Your task to perform on an android device: Go to CNN.com Image 0: 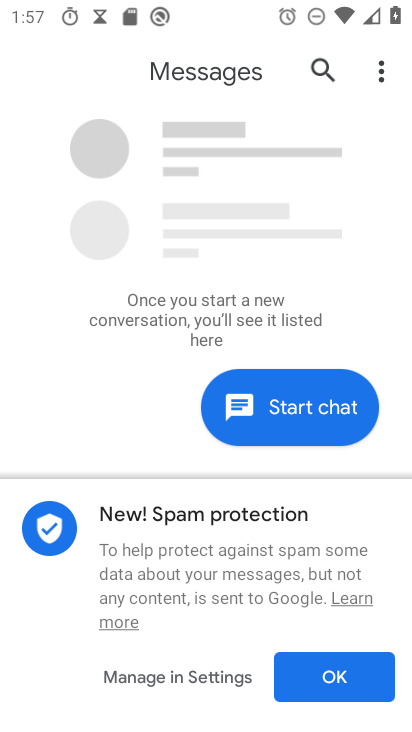
Step 0: press home button
Your task to perform on an android device: Go to CNN.com Image 1: 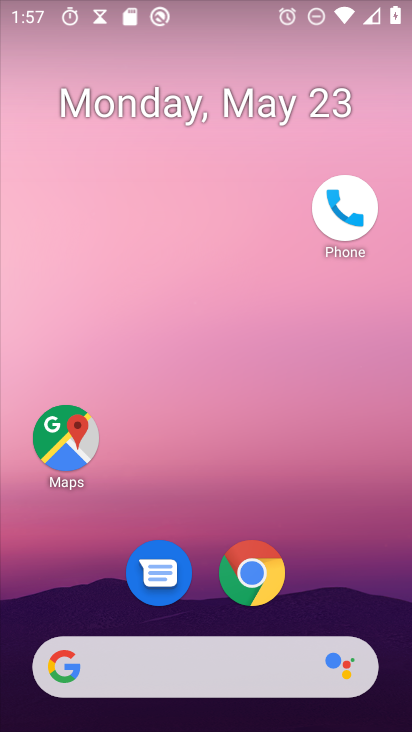
Step 1: click (256, 590)
Your task to perform on an android device: Go to CNN.com Image 2: 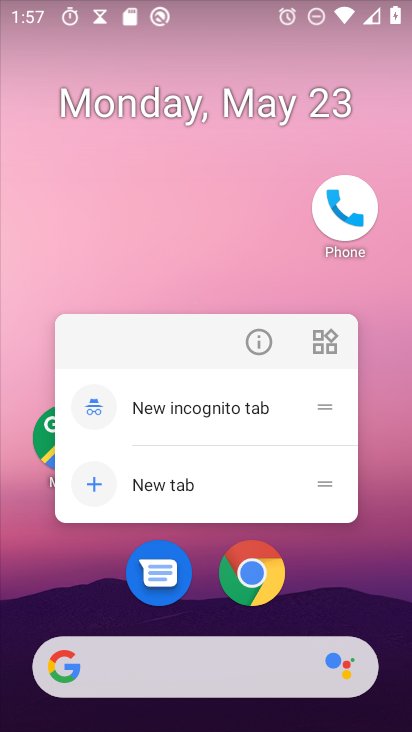
Step 2: click (241, 574)
Your task to perform on an android device: Go to CNN.com Image 3: 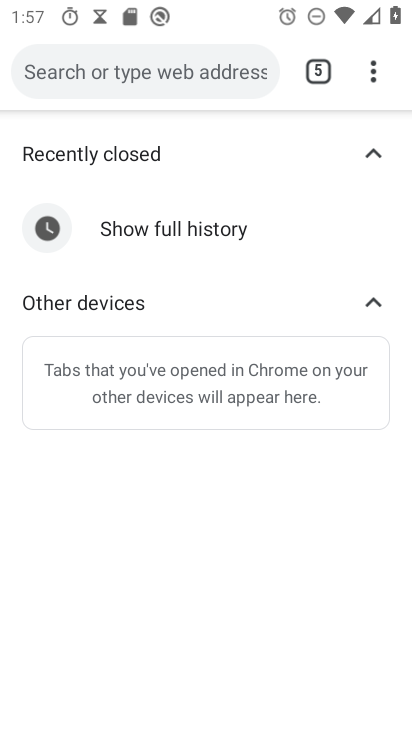
Step 3: drag from (373, 84) to (297, 133)
Your task to perform on an android device: Go to CNN.com Image 4: 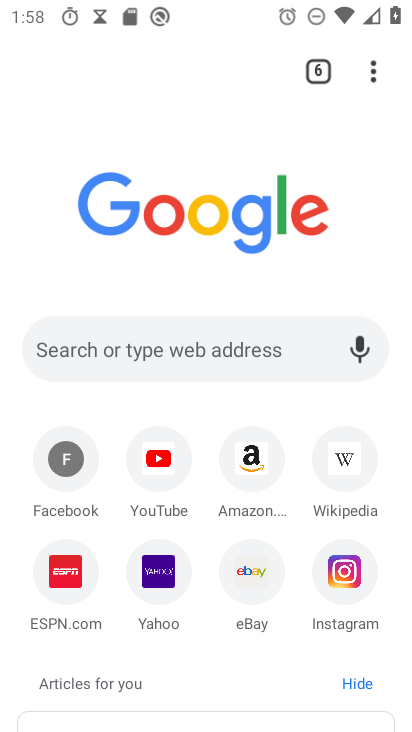
Step 4: click (105, 355)
Your task to perform on an android device: Go to CNN.com Image 5: 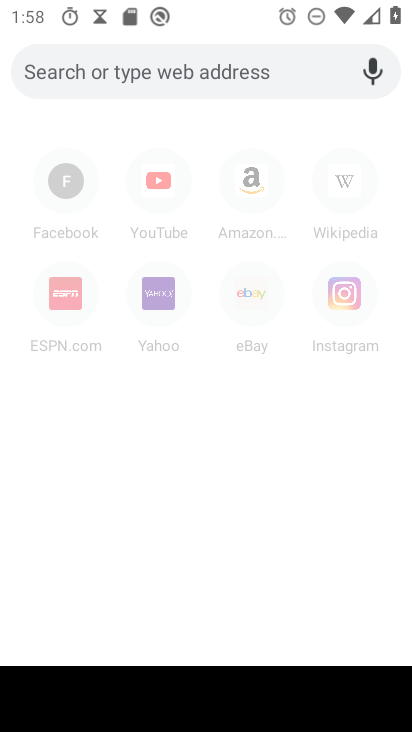
Step 5: type "cnn.com"
Your task to perform on an android device: Go to CNN.com Image 6: 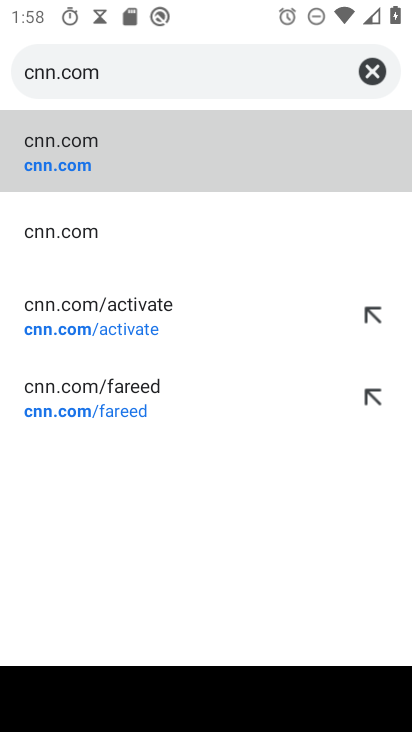
Step 6: click (150, 124)
Your task to perform on an android device: Go to CNN.com Image 7: 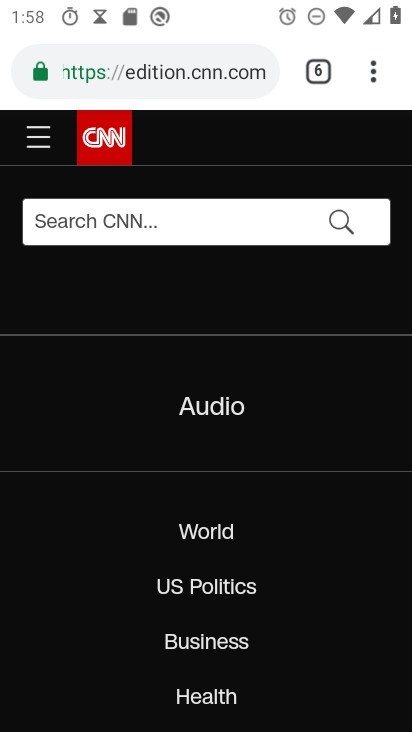
Step 7: task complete